Your task to perform on an android device: Search for hotels in London Image 0: 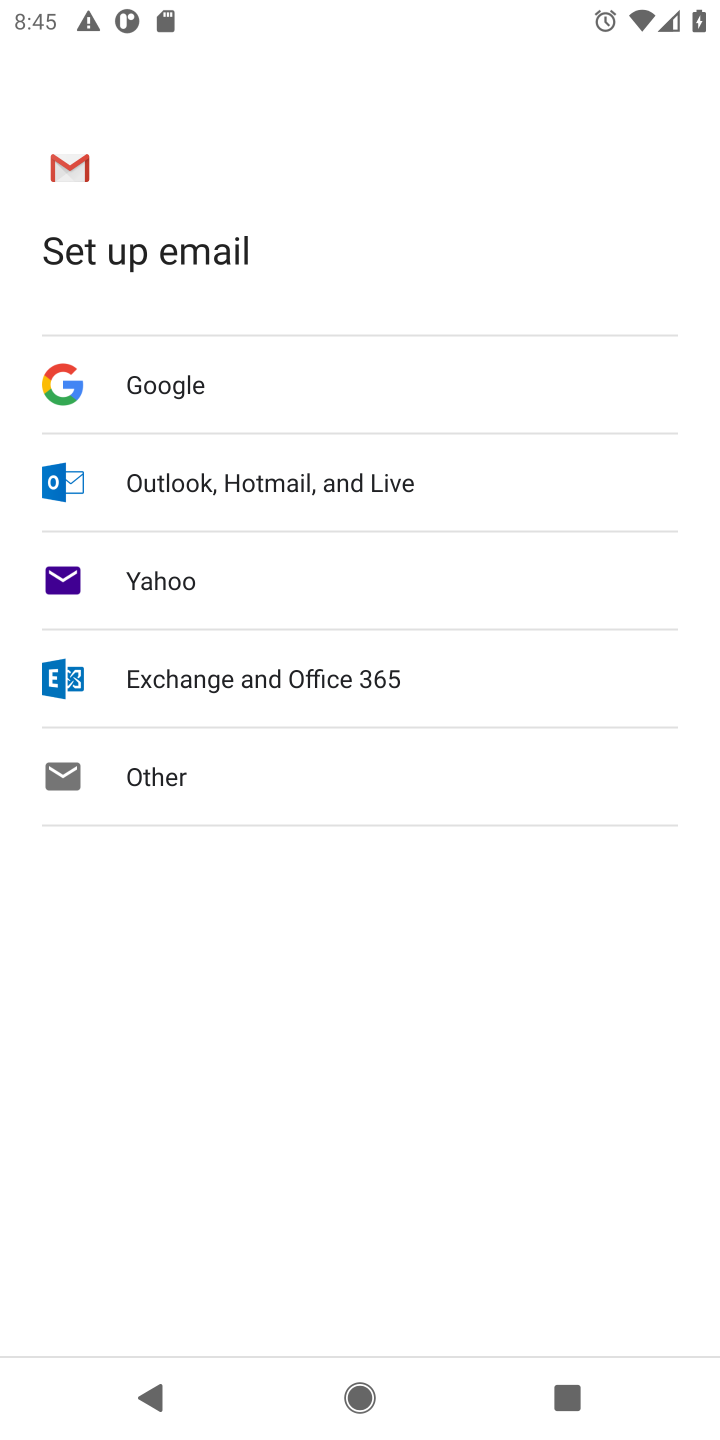
Step 0: press home button
Your task to perform on an android device: Search for hotels in London Image 1: 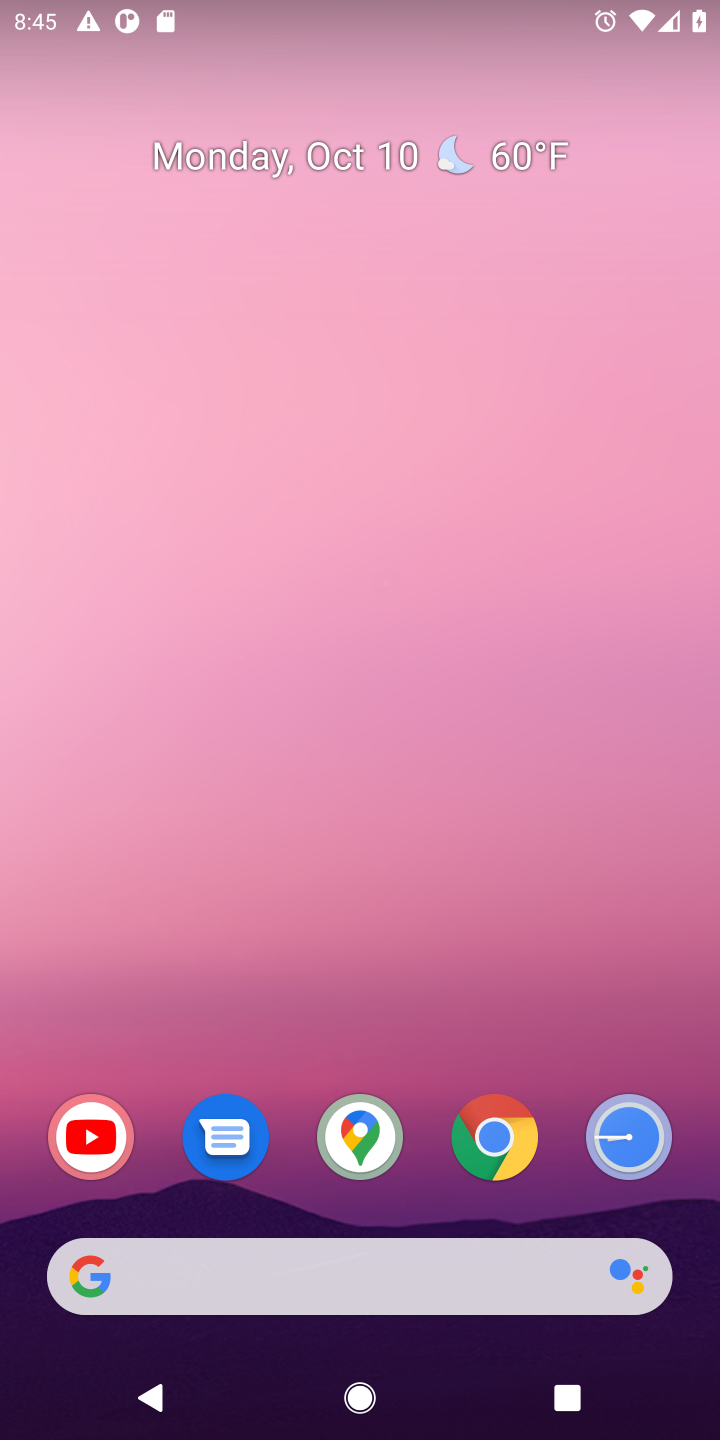
Step 1: click (492, 1137)
Your task to perform on an android device: Search for hotels in London Image 2: 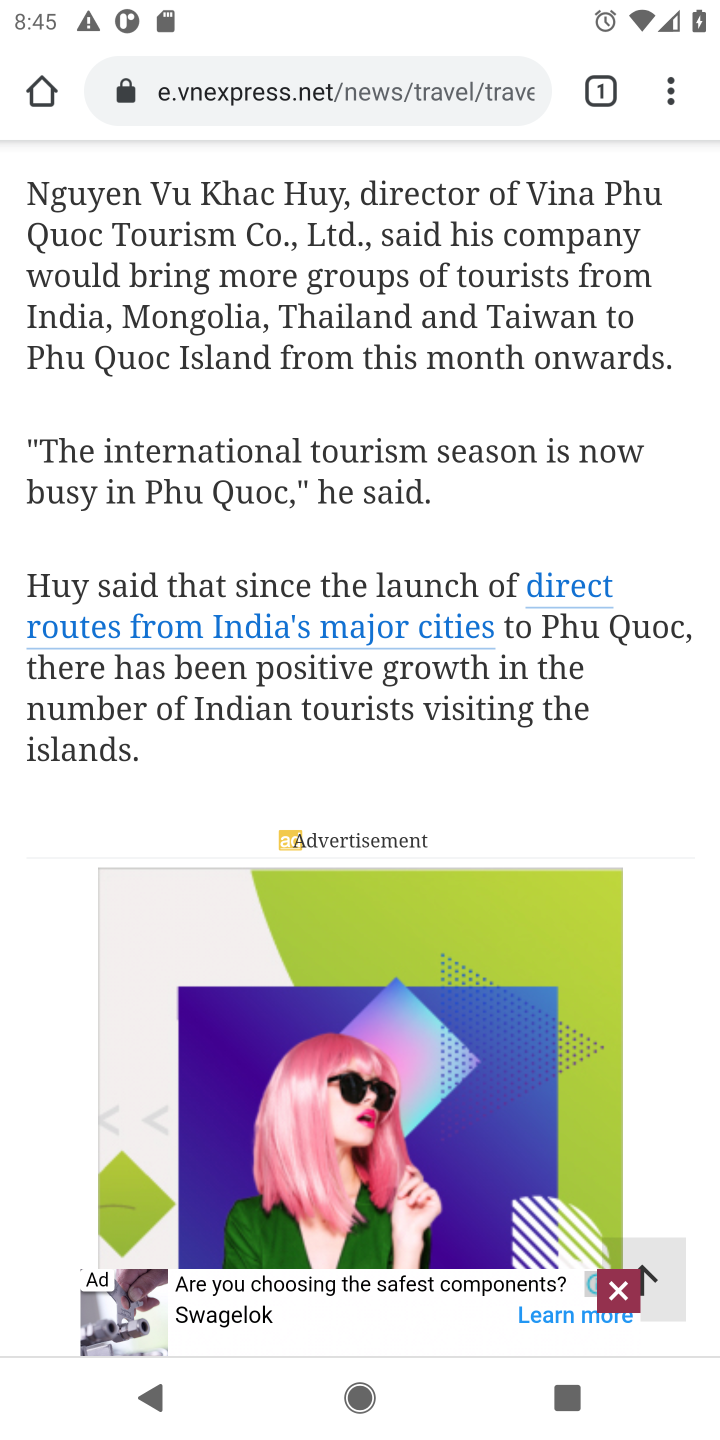
Step 2: click (354, 64)
Your task to perform on an android device: Search for hotels in London Image 3: 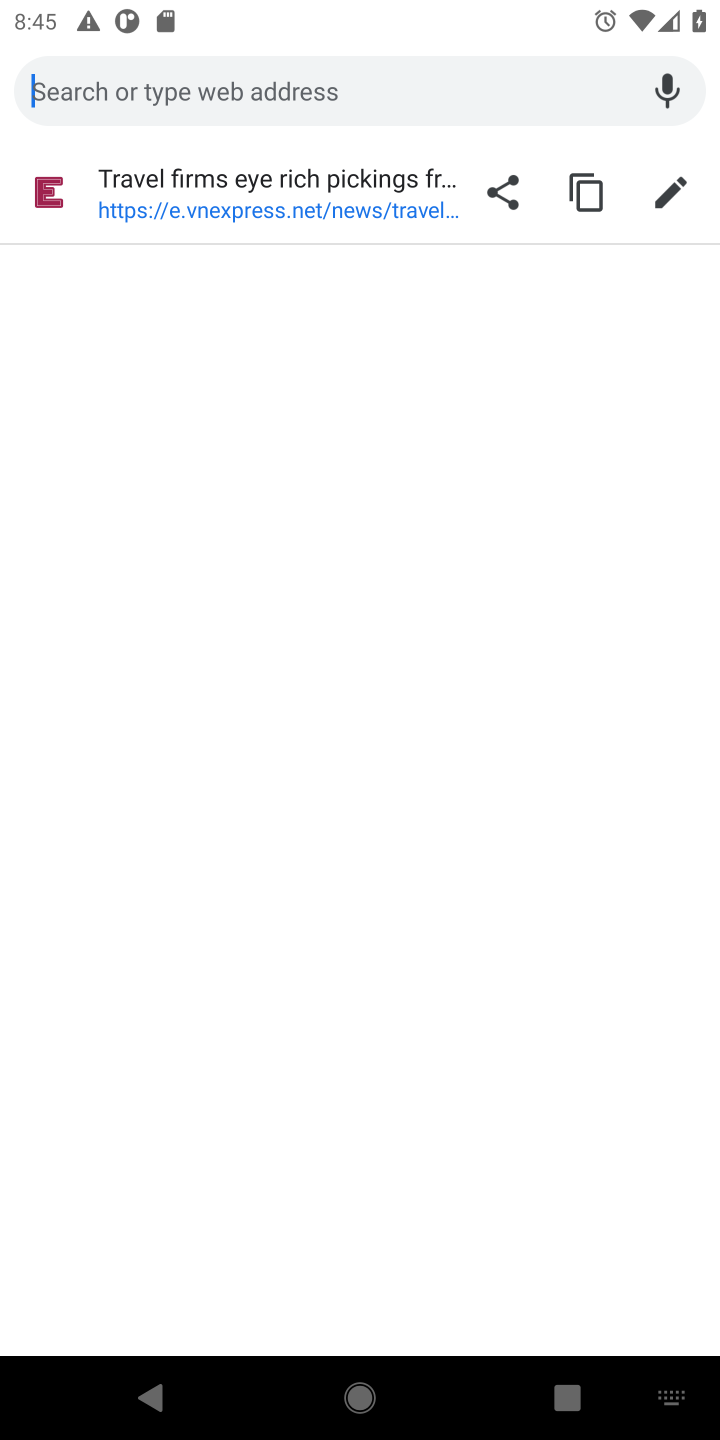
Step 3: type "hotels in london"
Your task to perform on an android device: Search for hotels in London Image 4: 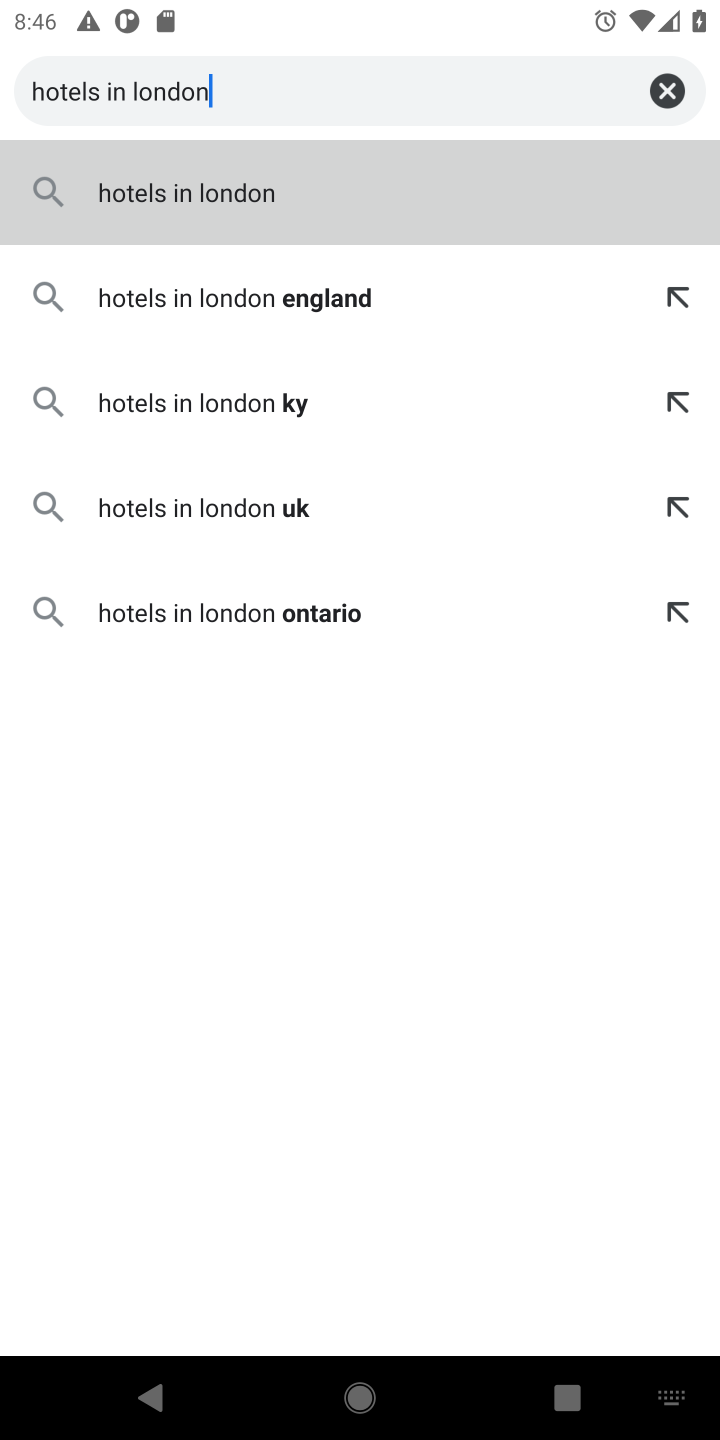
Step 4: click (143, 182)
Your task to perform on an android device: Search for hotels in London Image 5: 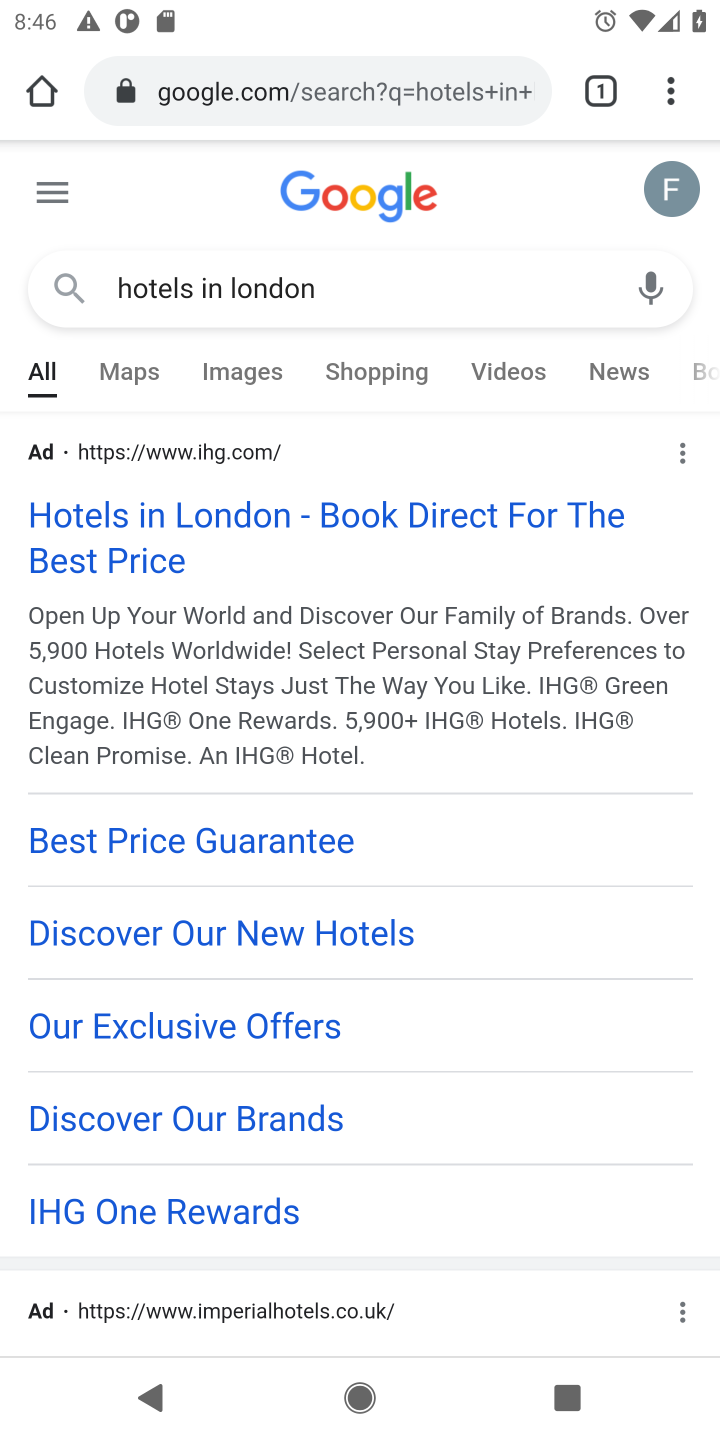
Step 5: click (158, 526)
Your task to perform on an android device: Search for hotels in London Image 6: 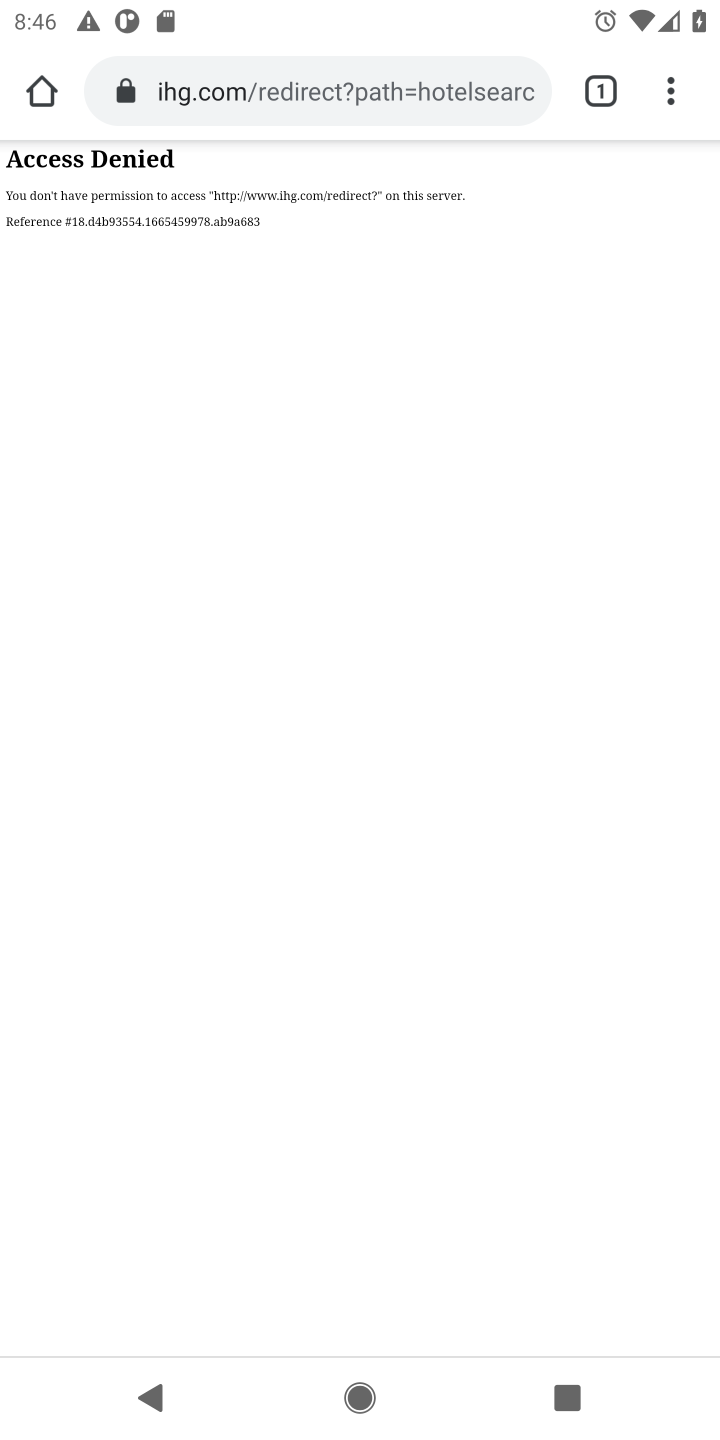
Step 6: press back button
Your task to perform on an android device: Search for hotels in London Image 7: 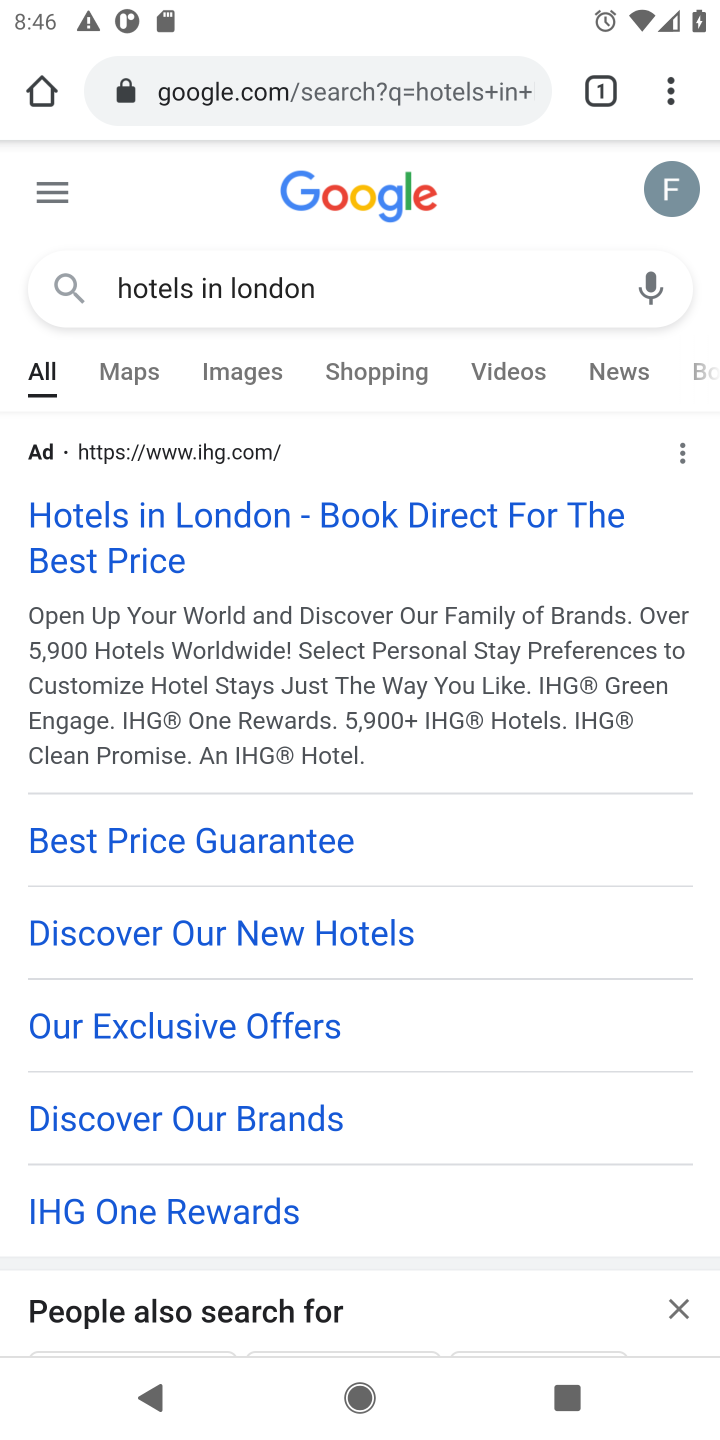
Step 7: drag from (453, 1242) to (443, 376)
Your task to perform on an android device: Search for hotels in London Image 8: 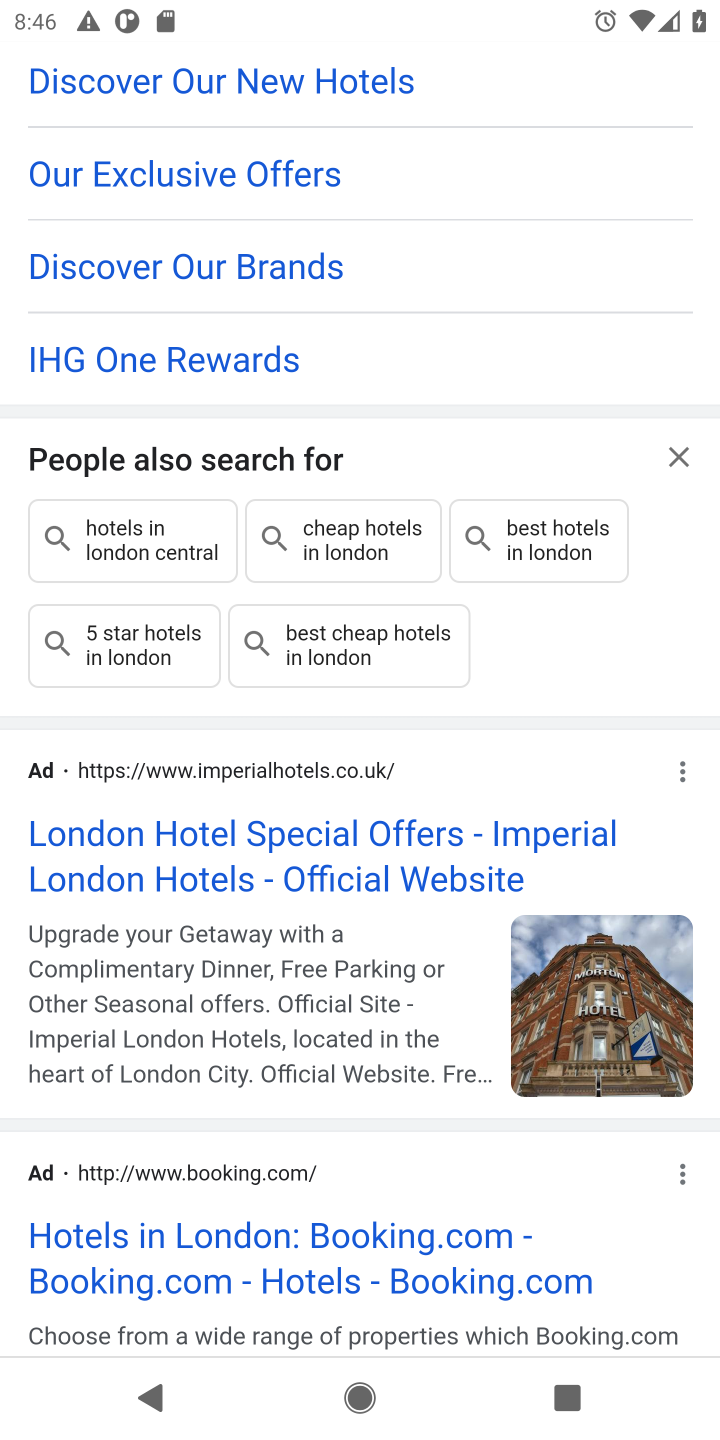
Step 8: click (136, 831)
Your task to perform on an android device: Search for hotels in London Image 9: 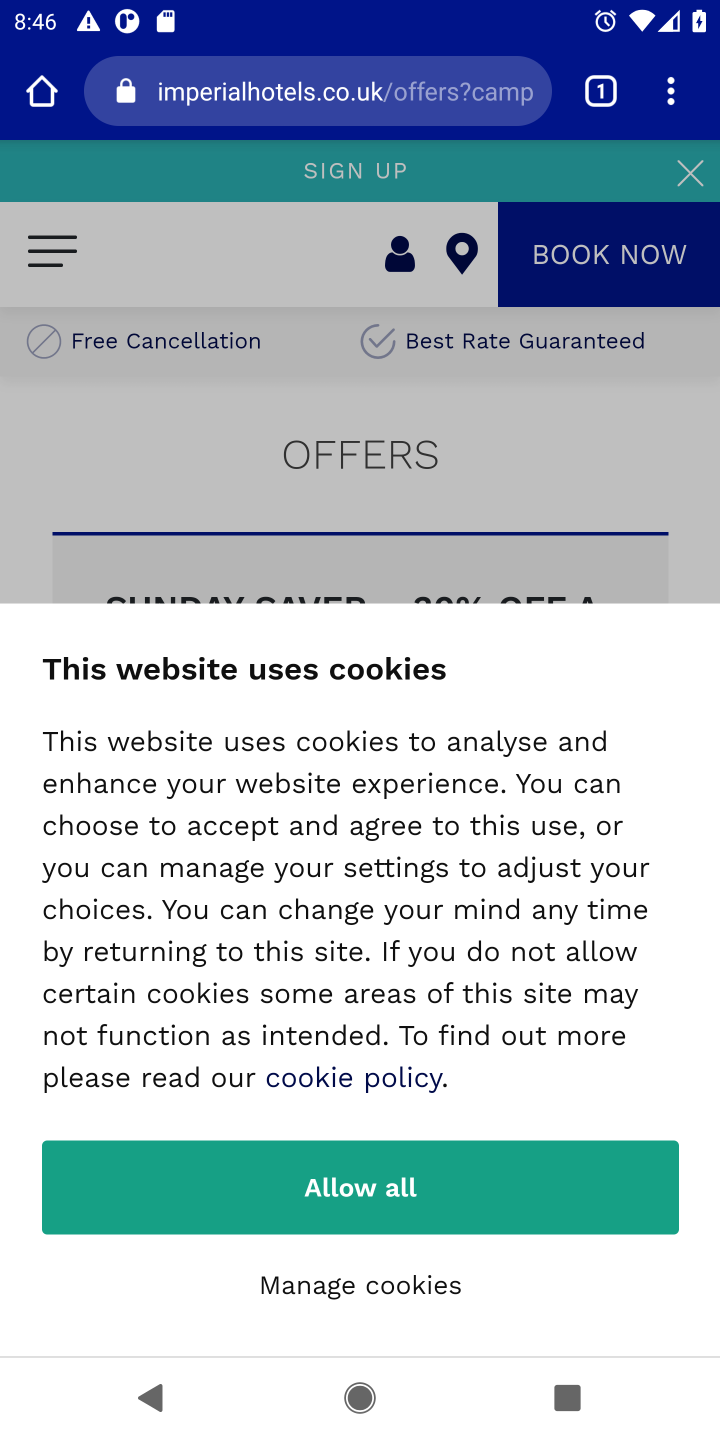
Step 9: click (369, 1183)
Your task to perform on an android device: Search for hotels in London Image 10: 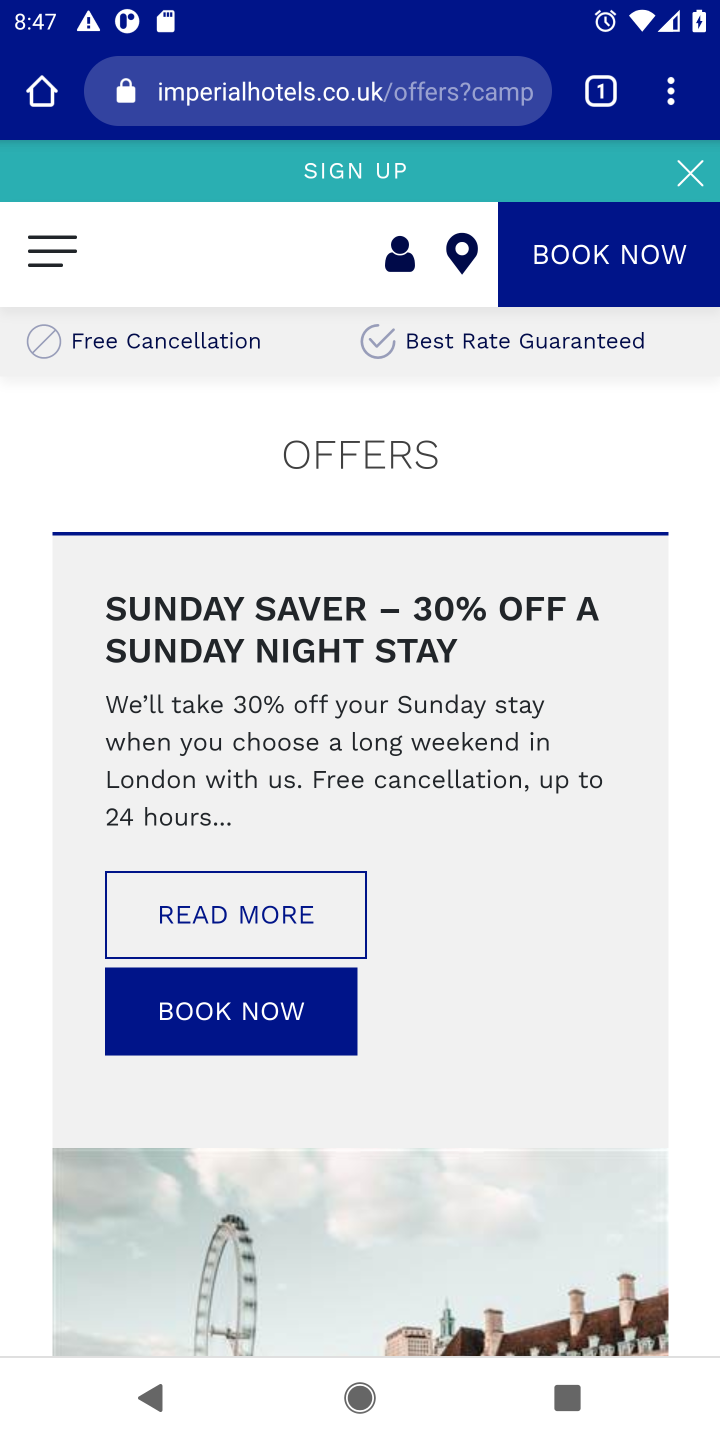
Step 10: task complete